Your task to perform on an android device: Go to location settings Image 0: 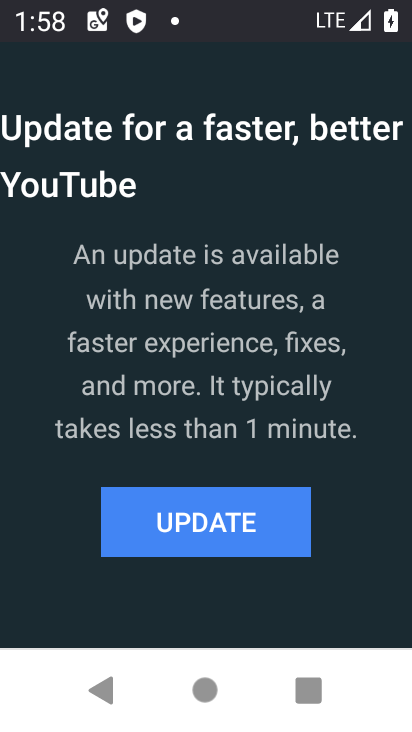
Step 0: drag from (341, 465) to (259, 176)
Your task to perform on an android device: Go to location settings Image 1: 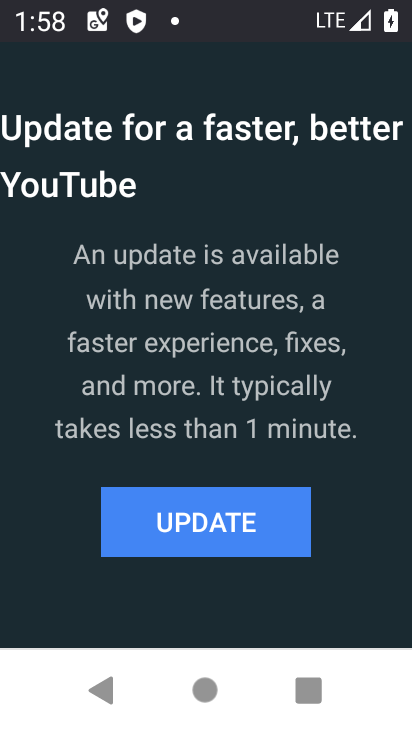
Step 1: press home button
Your task to perform on an android device: Go to location settings Image 2: 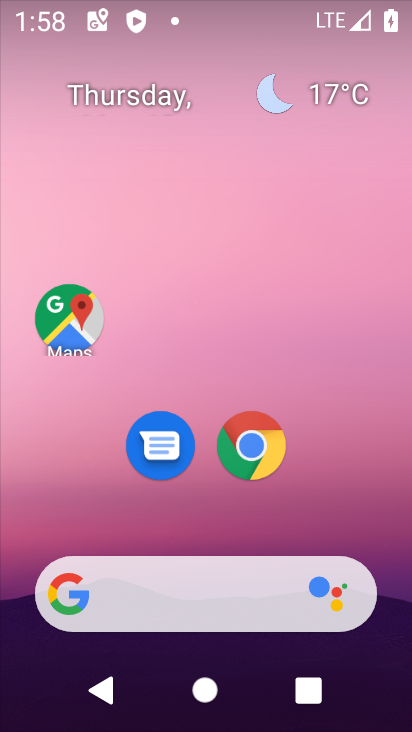
Step 2: drag from (319, 499) to (232, 102)
Your task to perform on an android device: Go to location settings Image 3: 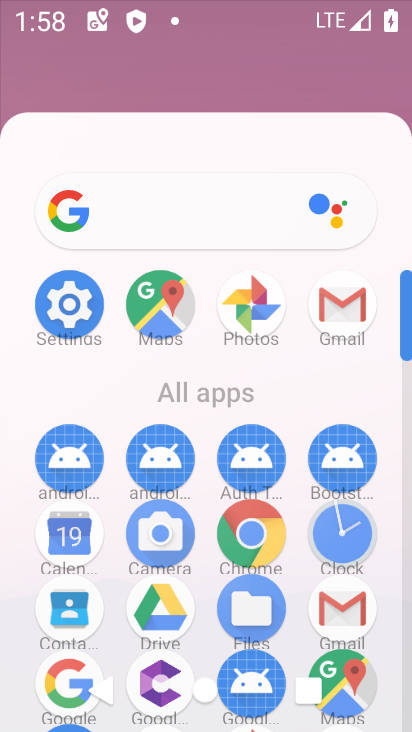
Step 3: click (232, 102)
Your task to perform on an android device: Go to location settings Image 4: 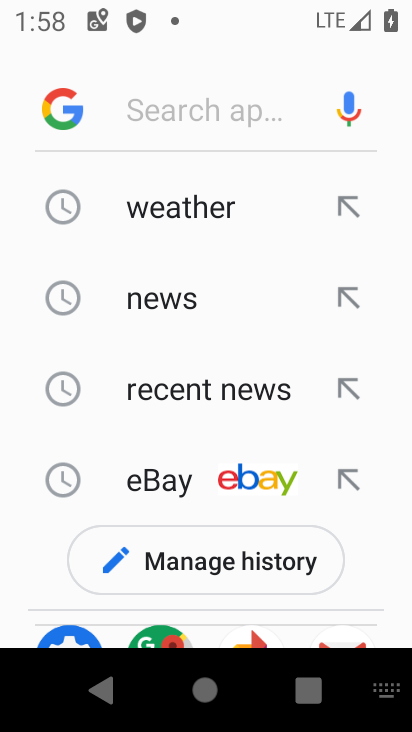
Step 4: press home button
Your task to perform on an android device: Go to location settings Image 5: 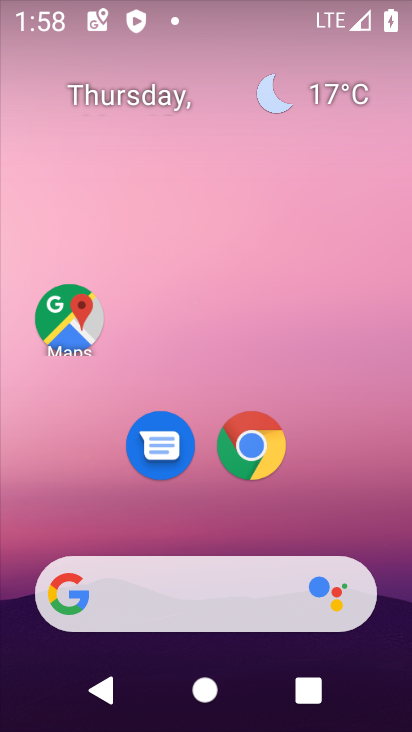
Step 5: drag from (318, 471) to (267, 27)
Your task to perform on an android device: Go to location settings Image 6: 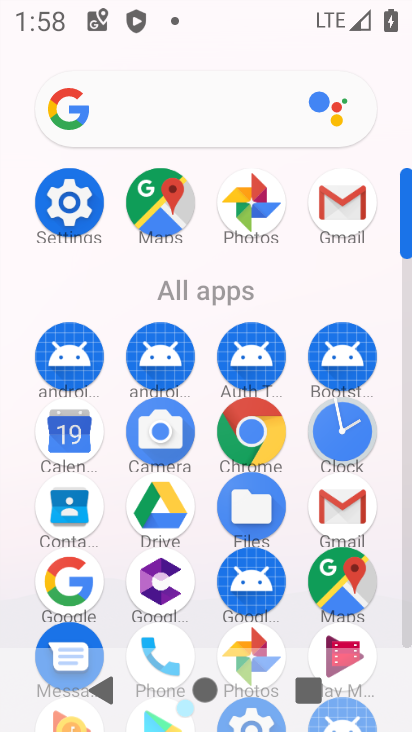
Step 6: click (77, 210)
Your task to perform on an android device: Go to location settings Image 7: 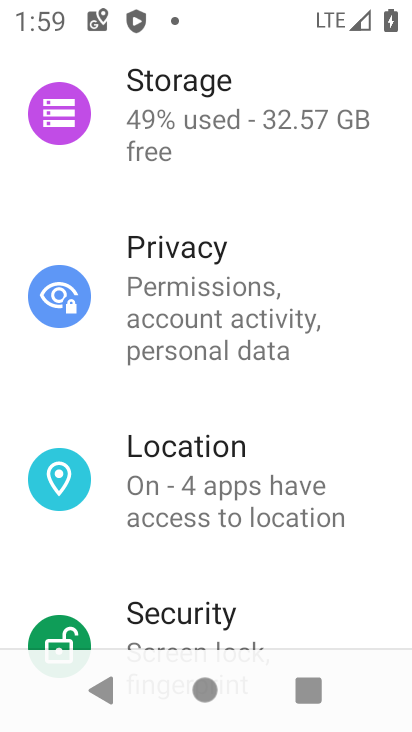
Step 7: click (177, 435)
Your task to perform on an android device: Go to location settings Image 8: 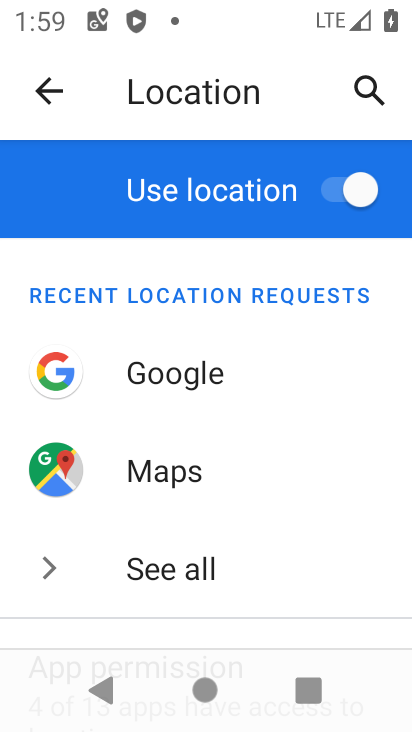
Step 8: task complete